Your task to perform on an android device: turn on airplane mode Image 0: 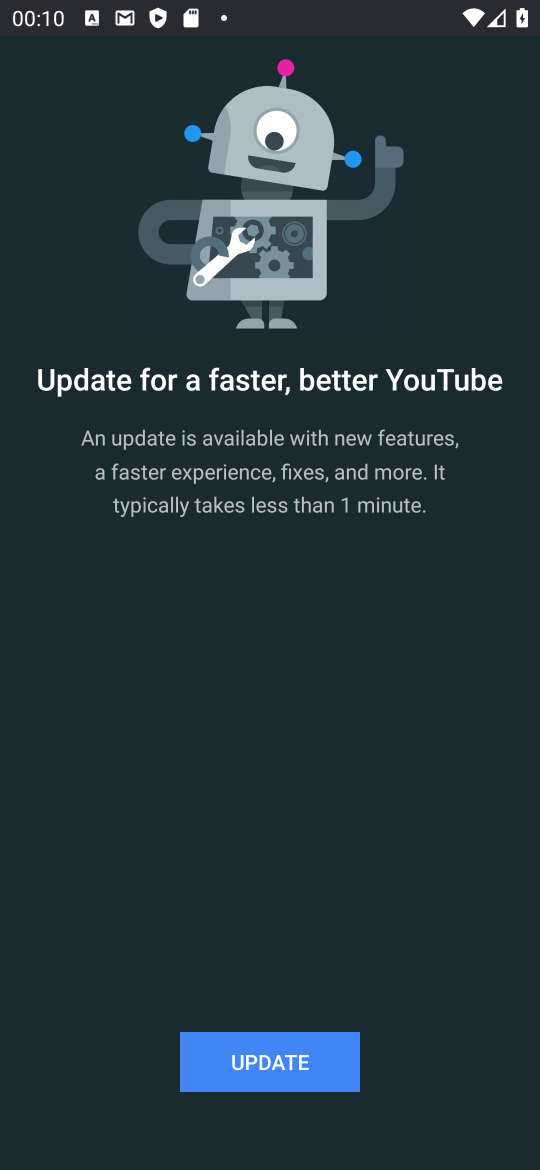
Step 0: press home button
Your task to perform on an android device: turn on airplane mode Image 1: 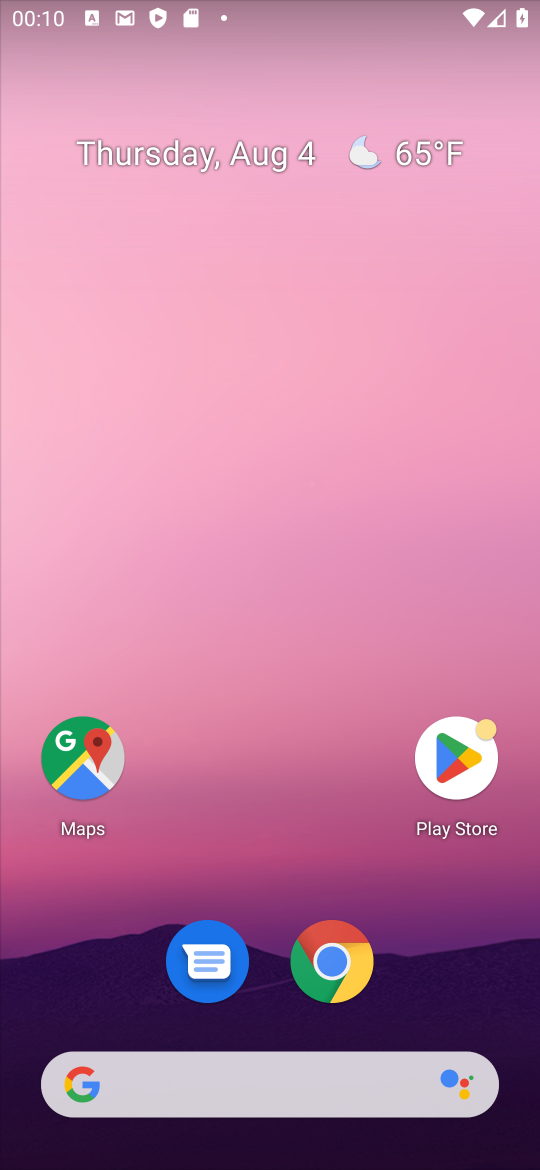
Step 1: drag from (267, 789) to (247, 37)
Your task to perform on an android device: turn on airplane mode Image 2: 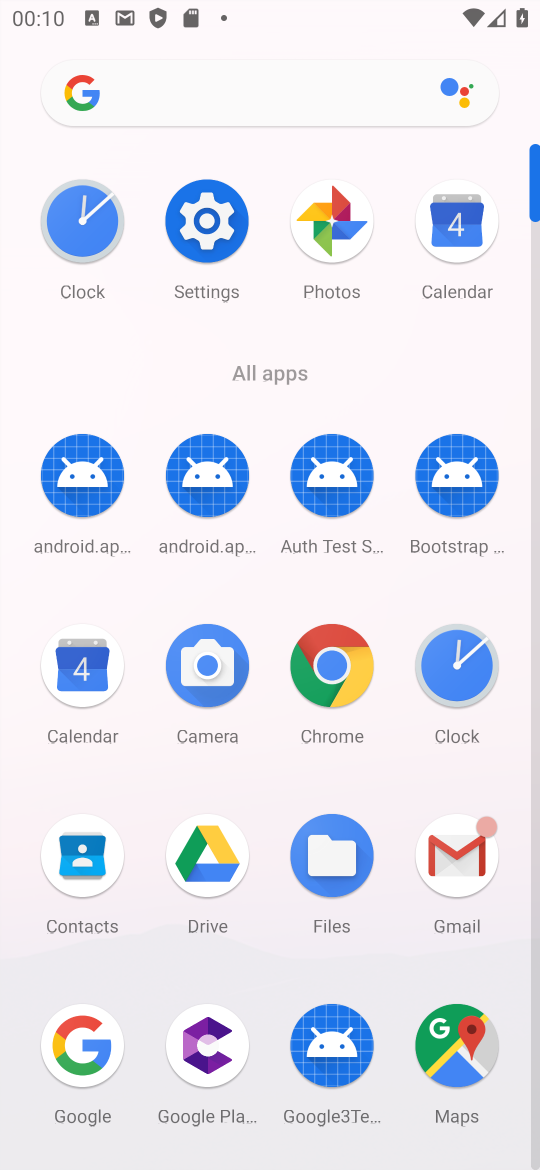
Step 2: click (210, 218)
Your task to perform on an android device: turn on airplane mode Image 3: 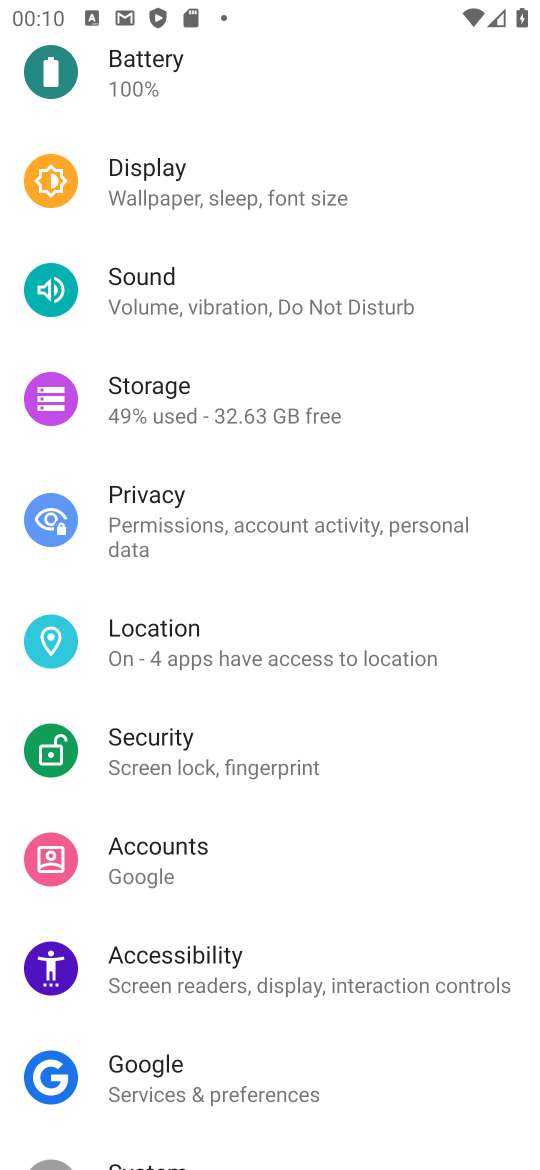
Step 3: drag from (288, 241) to (336, 854)
Your task to perform on an android device: turn on airplane mode Image 4: 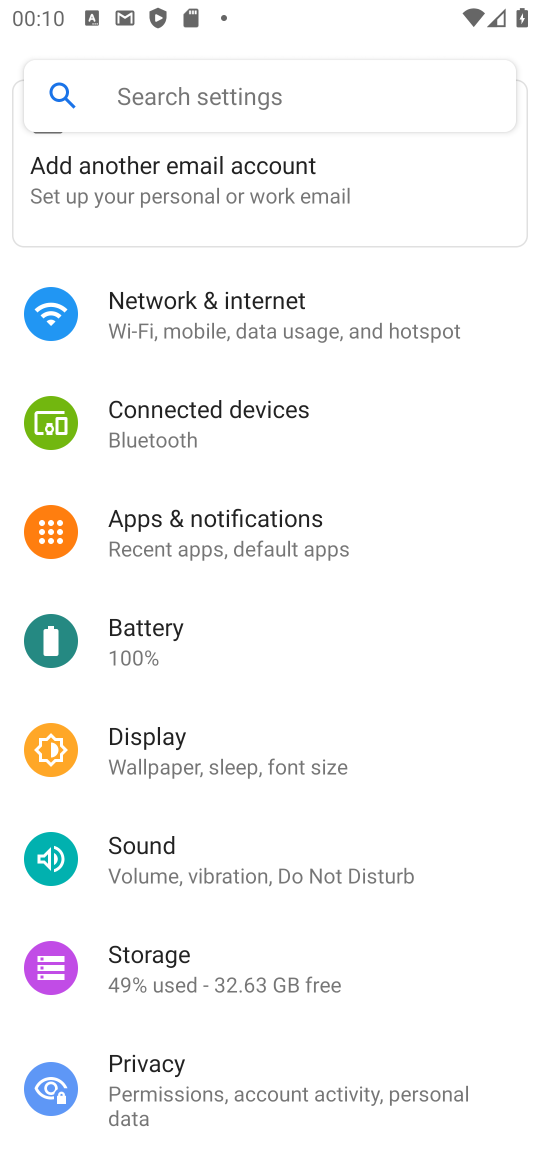
Step 4: click (263, 327)
Your task to perform on an android device: turn on airplane mode Image 5: 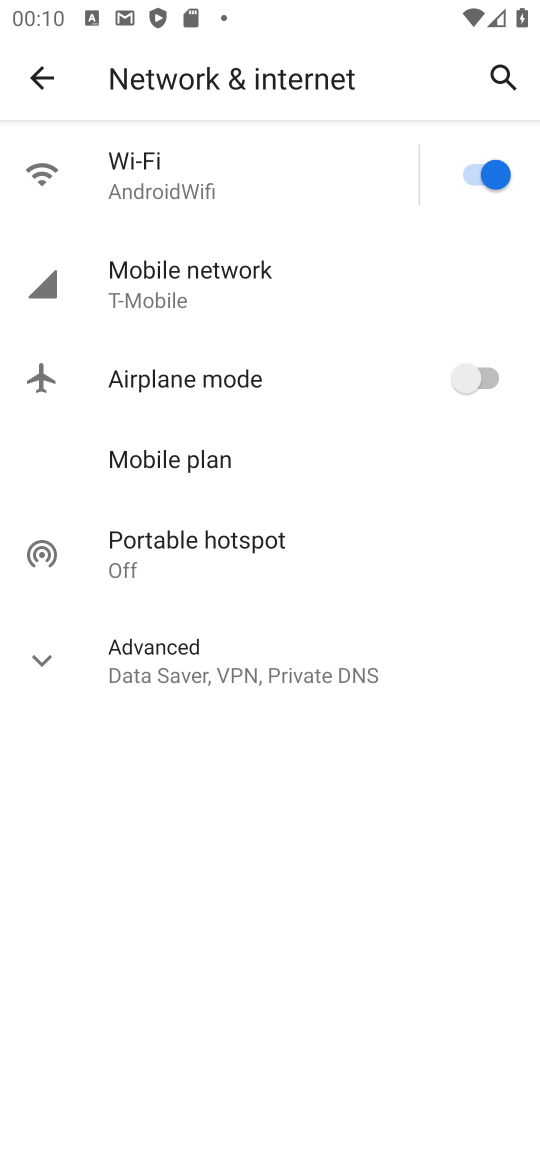
Step 5: click (479, 381)
Your task to perform on an android device: turn on airplane mode Image 6: 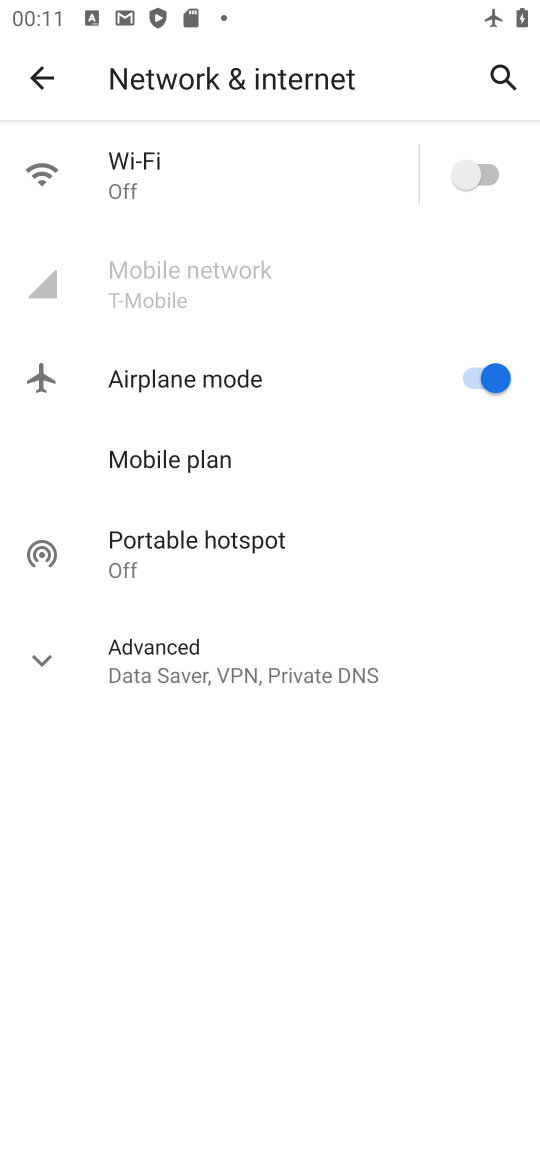
Step 6: task complete